Your task to perform on an android device: turn on sleep mode Image 0: 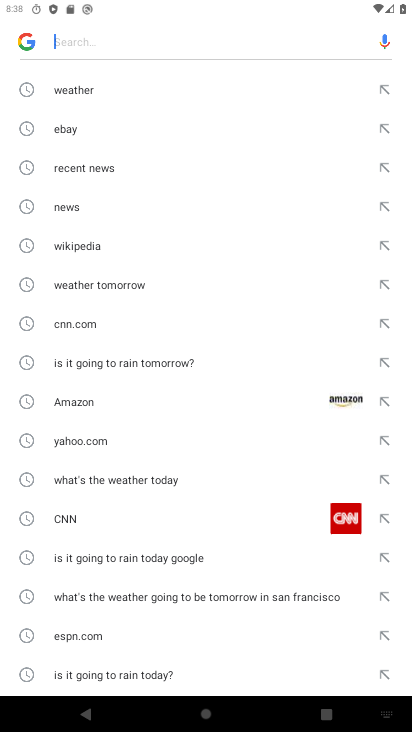
Step 0: press back button
Your task to perform on an android device: turn on sleep mode Image 1: 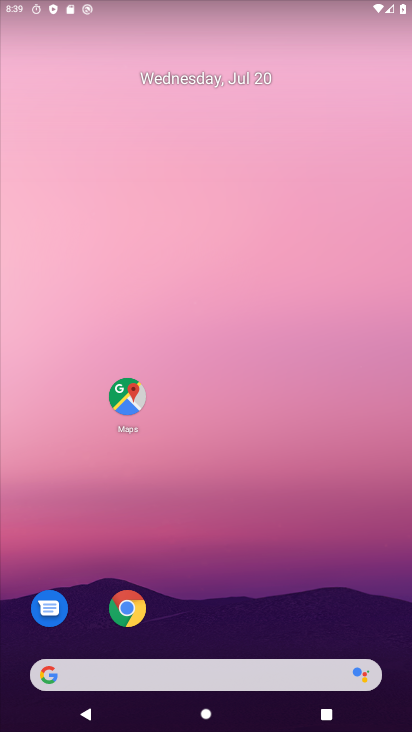
Step 1: drag from (279, 454) to (282, 14)
Your task to perform on an android device: turn on sleep mode Image 2: 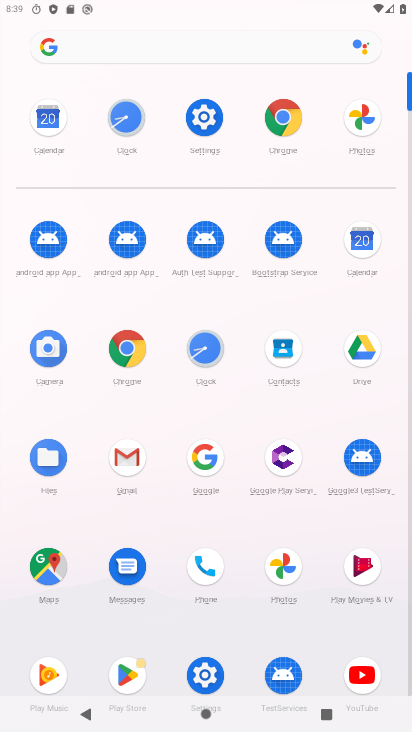
Step 2: click (213, 671)
Your task to perform on an android device: turn on sleep mode Image 3: 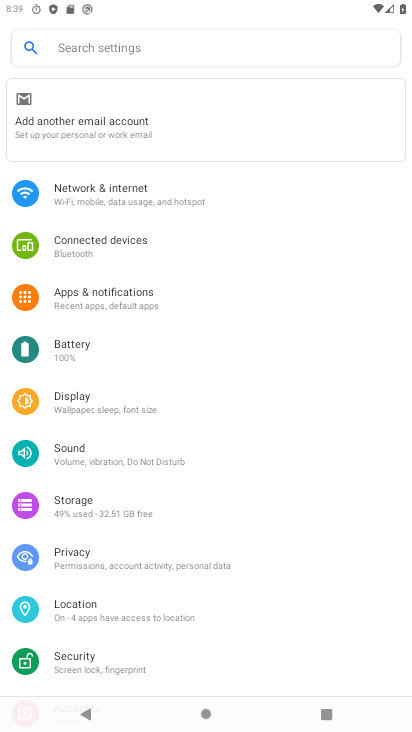
Step 3: task complete